Your task to perform on an android device: Open Google Maps and go to "Timeline" Image 0: 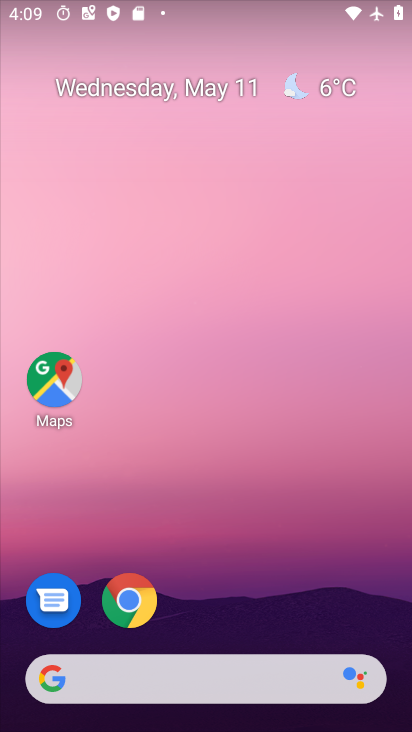
Step 0: drag from (302, 698) to (181, 86)
Your task to perform on an android device: Open Google Maps and go to "Timeline" Image 1: 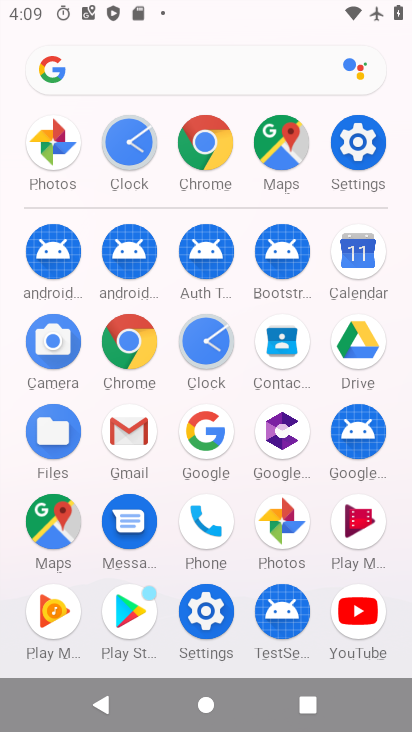
Step 1: click (284, 148)
Your task to perform on an android device: Open Google Maps and go to "Timeline" Image 2: 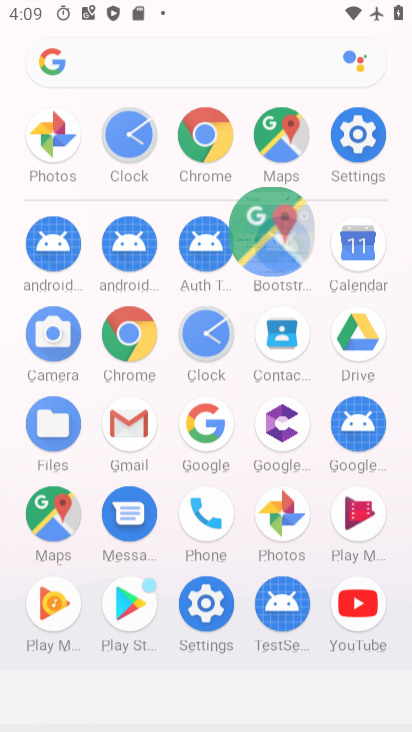
Step 2: click (284, 148)
Your task to perform on an android device: Open Google Maps and go to "Timeline" Image 3: 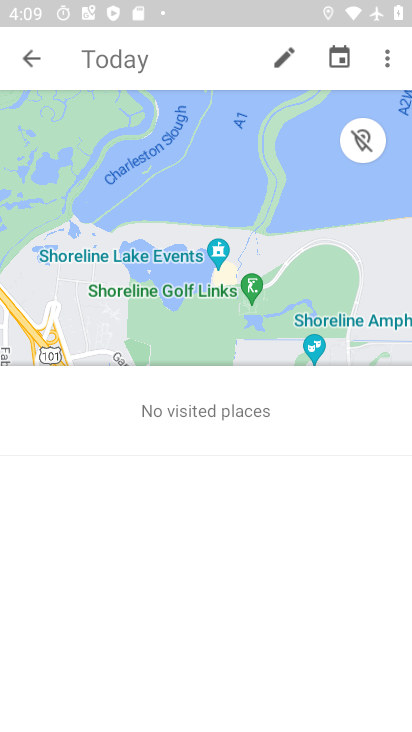
Step 3: click (30, 51)
Your task to perform on an android device: Open Google Maps and go to "Timeline" Image 4: 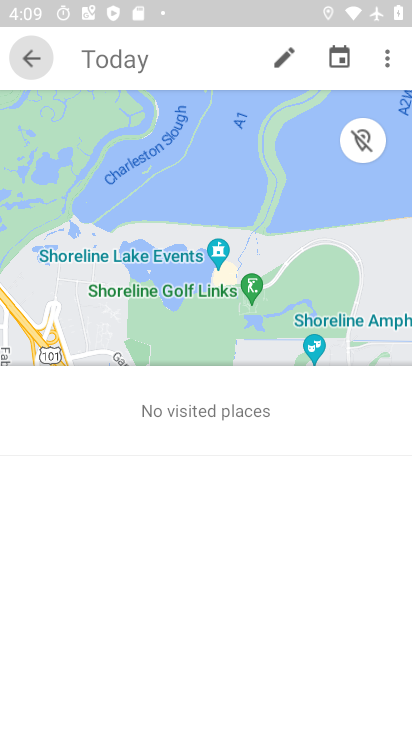
Step 4: click (30, 51)
Your task to perform on an android device: Open Google Maps and go to "Timeline" Image 5: 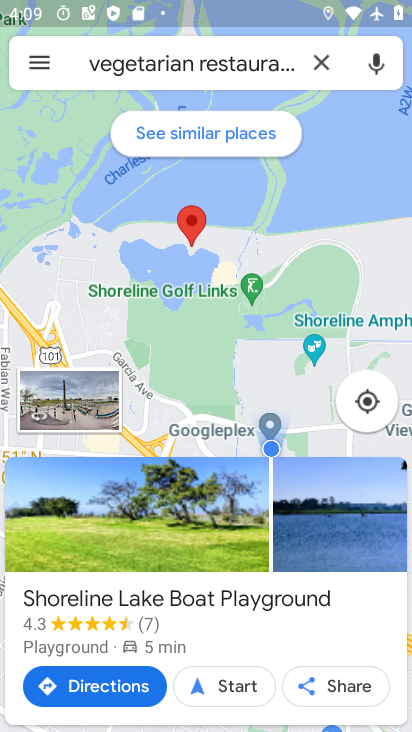
Step 5: click (38, 73)
Your task to perform on an android device: Open Google Maps and go to "Timeline" Image 6: 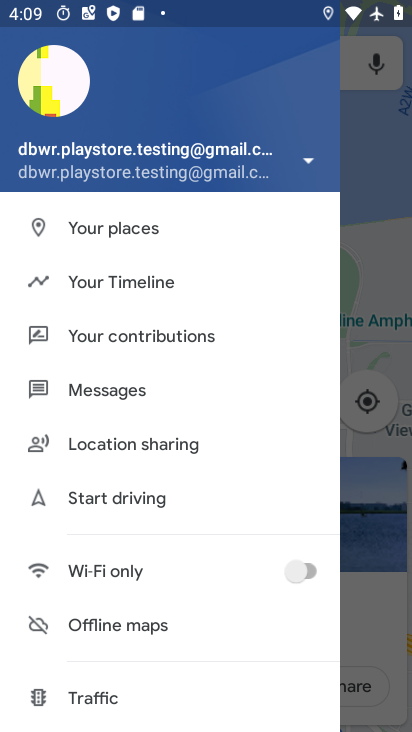
Step 6: click (139, 286)
Your task to perform on an android device: Open Google Maps and go to "Timeline" Image 7: 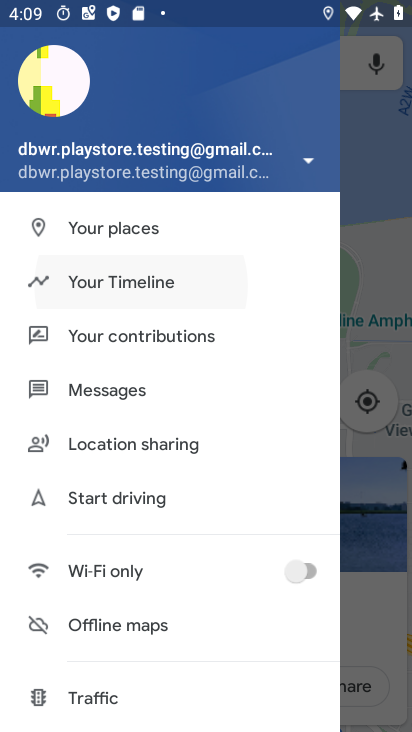
Step 7: click (139, 285)
Your task to perform on an android device: Open Google Maps and go to "Timeline" Image 8: 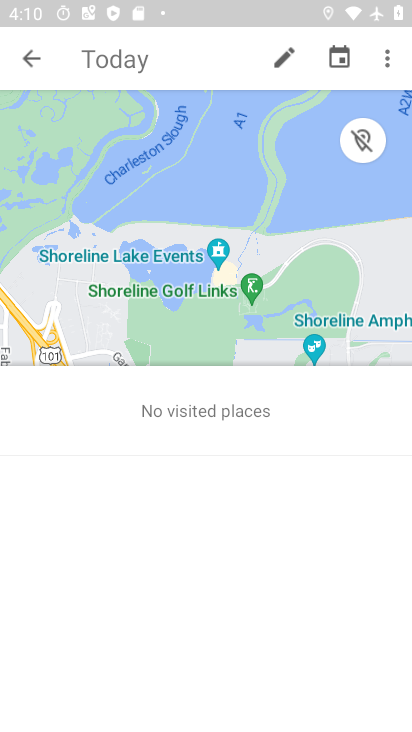
Step 8: click (25, 52)
Your task to perform on an android device: Open Google Maps and go to "Timeline" Image 9: 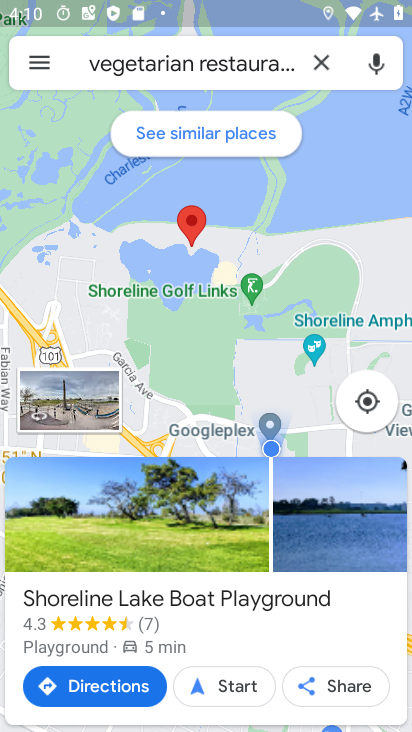
Step 9: click (45, 69)
Your task to perform on an android device: Open Google Maps and go to "Timeline" Image 10: 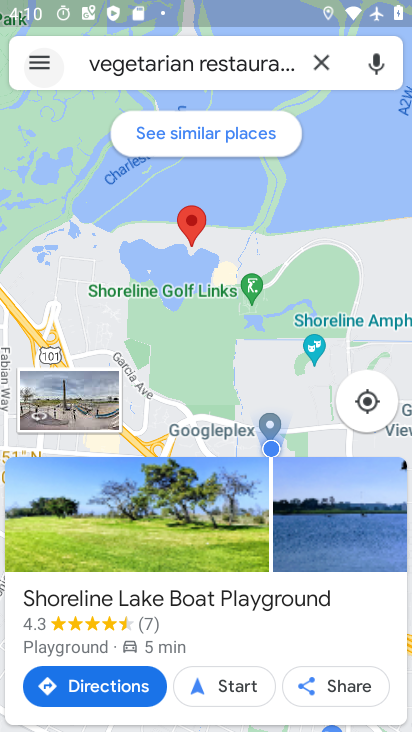
Step 10: click (46, 67)
Your task to perform on an android device: Open Google Maps and go to "Timeline" Image 11: 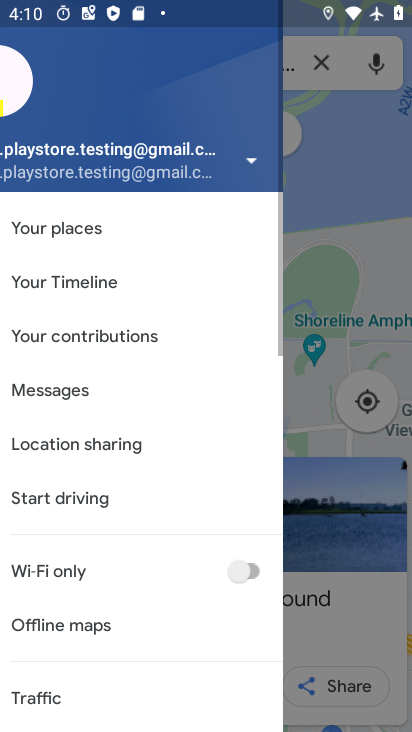
Step 11: click (47, 67)
Your task to perform on an android device: Open Google Maps and go to "Timeline" Image 12: 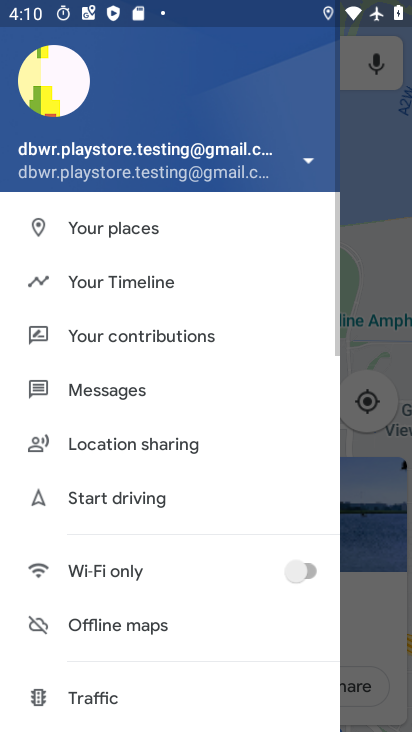
Step 12: click (138, 272)
Your task to perform on an android device: Open Google Maps and go to "Timeline" Image 13: 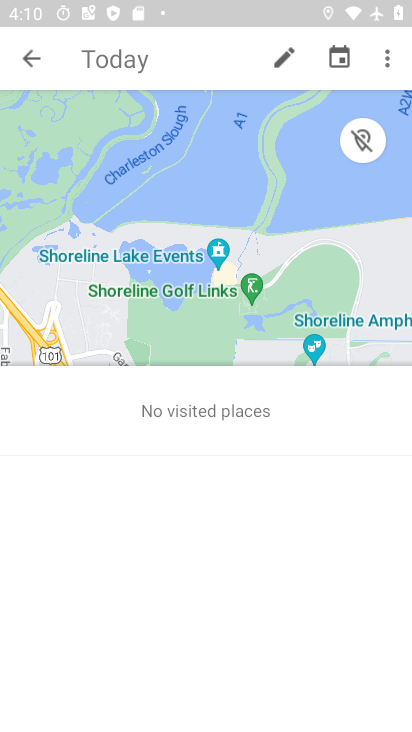
Step 13: task complete